Your task to perform on an android device: snooze an email in the gmail app Image 0: 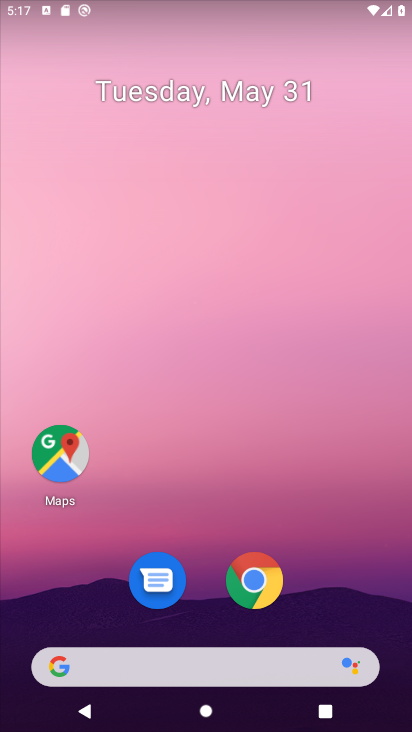
Step 0: press back button
Your task to perform on an android device: snooze an email in the gmail app Image 1: 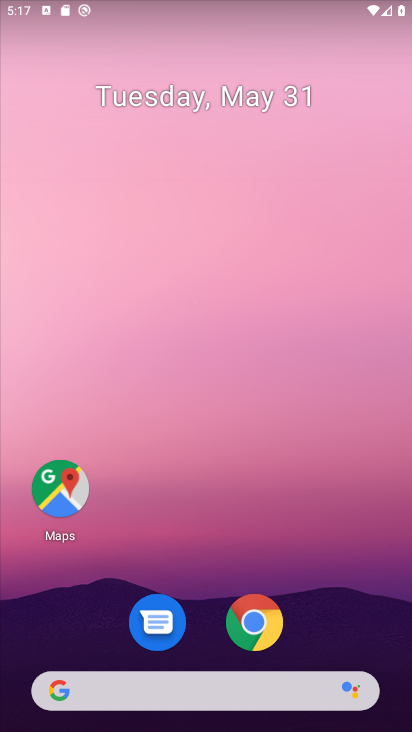
Step 1: drag from (265, 699) to (285, 1)
Your task to perform on an android device: snooze an email in the gmail app Image 2: 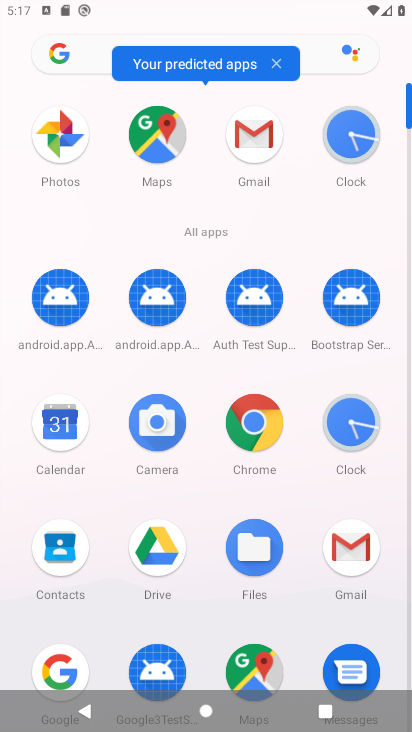
Step 2: drag from (304, 603) to (309, 431)
Your task to perform on an android device: snooze an email in the gmail app Image 3: 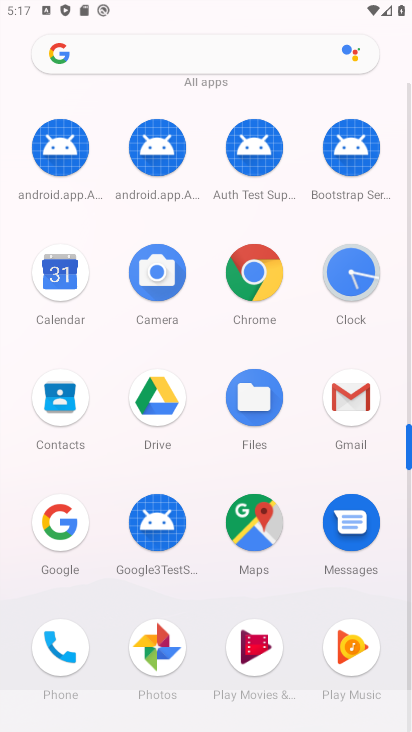
Step 3: click (377, 409)
Your task to perform on an android device: snooze an email in the gmail app Image 4: 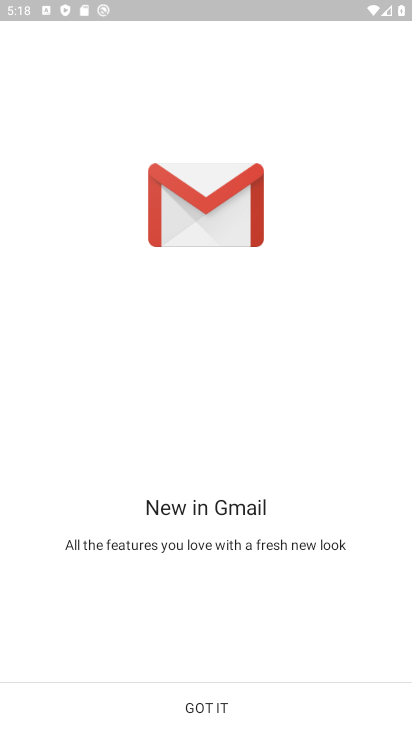
Step 4: click (217, 688)
Your task to perform on an android device: snooze an email in the gmail app Image 5: 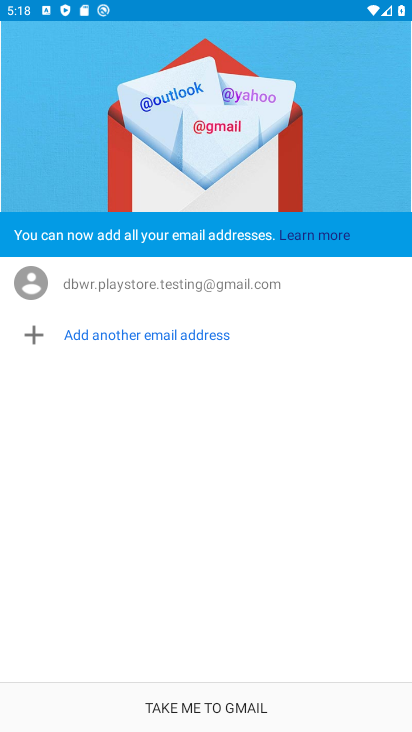
Step 5: click (154, 707)
Your task to perform on an android device: snooze an email in the gmail app Image 6: 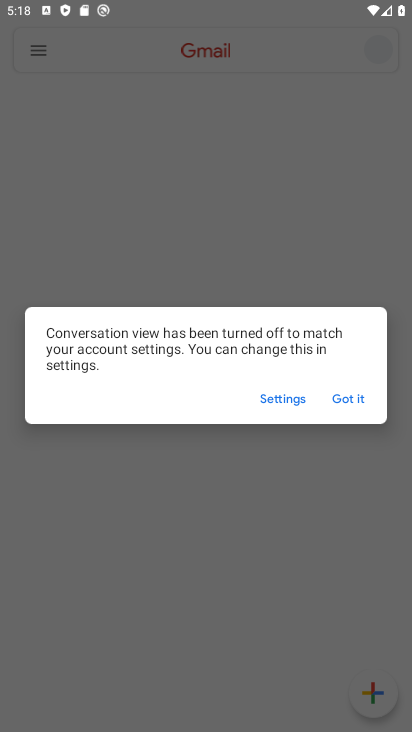
Step 6: click (344, 400)
Your task to perform on an android device: snooze an email in the gmail app Image 7: 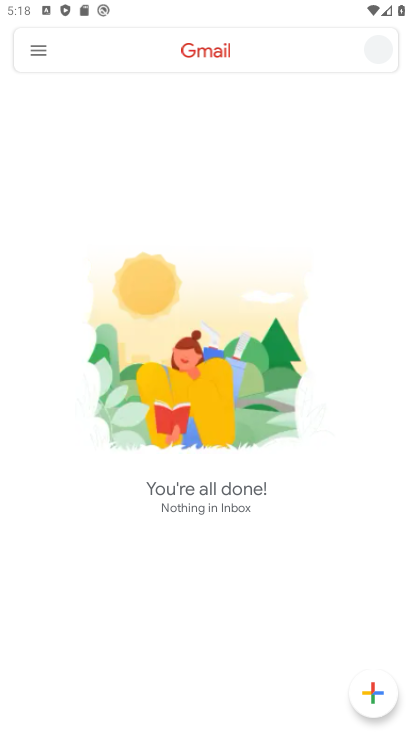
Step 7: click (40, 55)
Your task to perform on an android device: snooze an email in the gmail app Image 8: 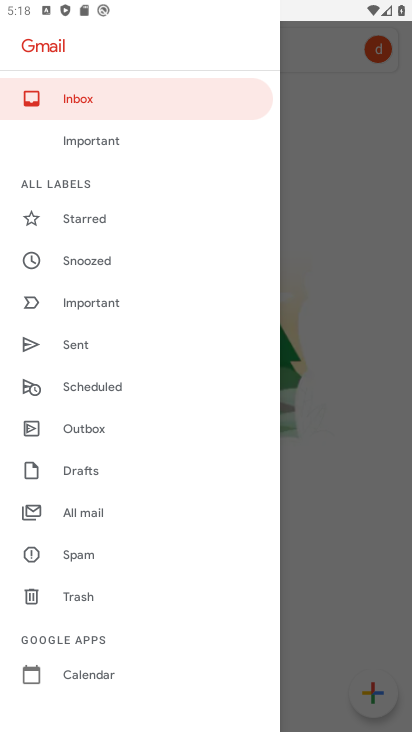
Step 8: click (113, 256)
Your task to perform on an android device: snooze an email in the gmail app Image 9: 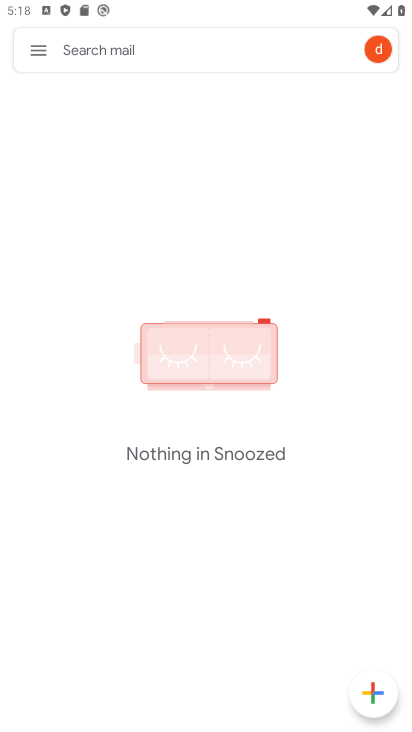
Step 9: task complete